Your task to perform on an android device: Open calendar and show me the second week of next month Image 0: 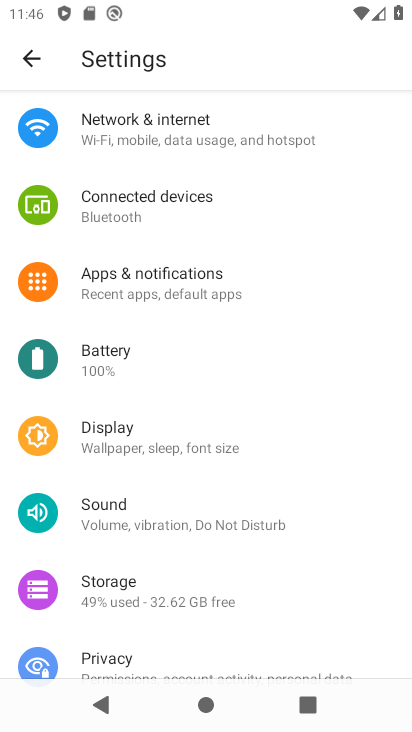
Step 0: press home button
Your task to perform on an android device: Open calendar and show me the second week of next month Image 1: 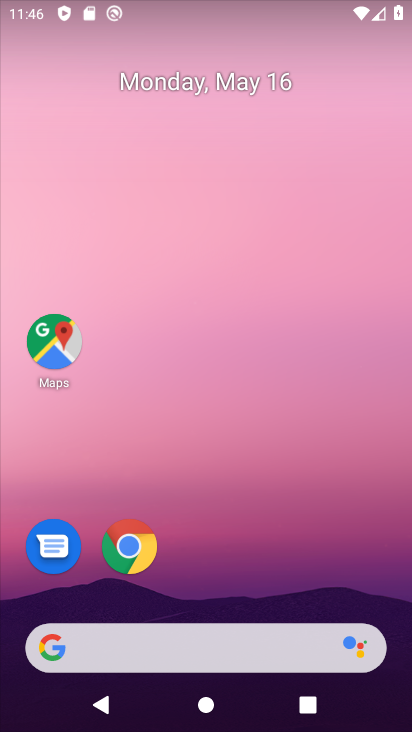
Step 1: drag from (396, 633) to (300, 118)
Your task to perform on an android device: Open calendar and show me the second week of next month Image 2: 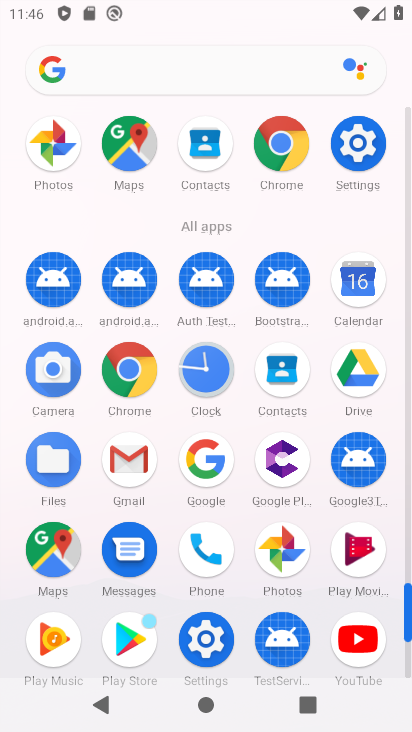
Step 2: click (409, 660)
Your task to perform on an android device: Open calendar and show me the second week of next month Image 3: 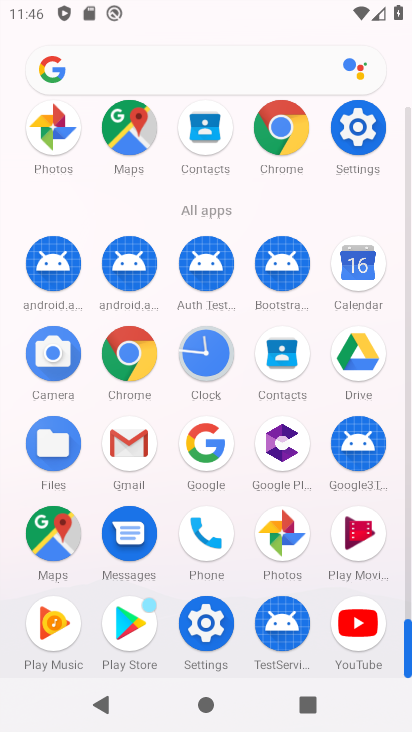
Step 3: click (357, 262)
Your task to perform on an android device: Open calendar and show me the second week of next month Image 4: 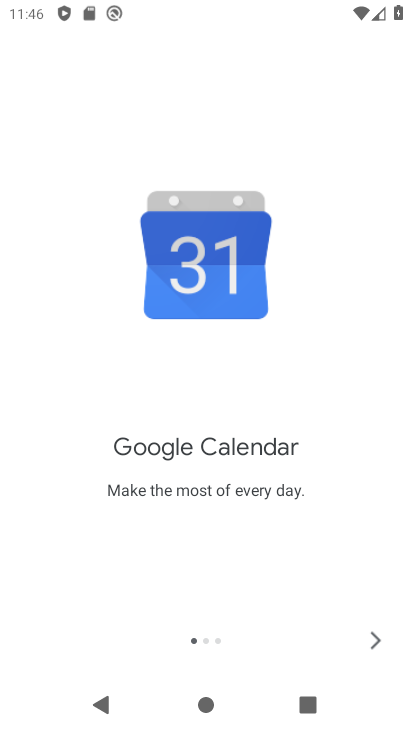
Step 4: click (374, 633)
Your task to perform on an android device: Open calendar and show me the second week of next month Image 5: 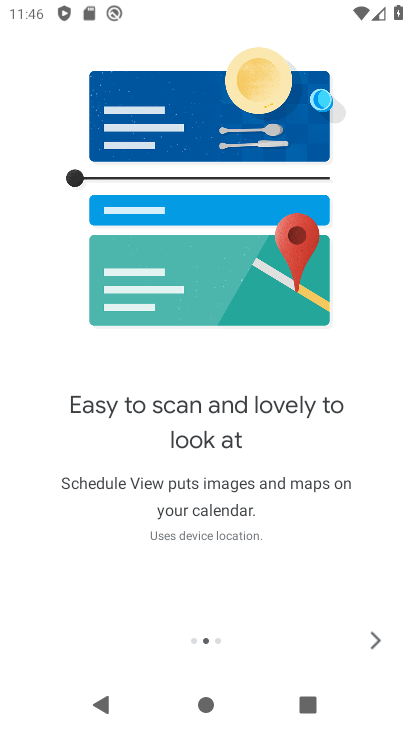
Step 5: click (374, 633)
Your task to perform on an android device: Open calendar and show me the second week of next month Image 6: 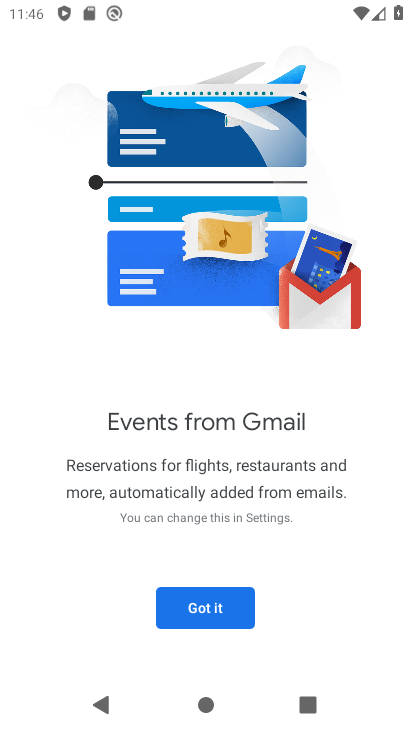
Step 6: click (209, 605)
Your task to perform on an android device: Open calendar and show me the second week of next month Image 7: 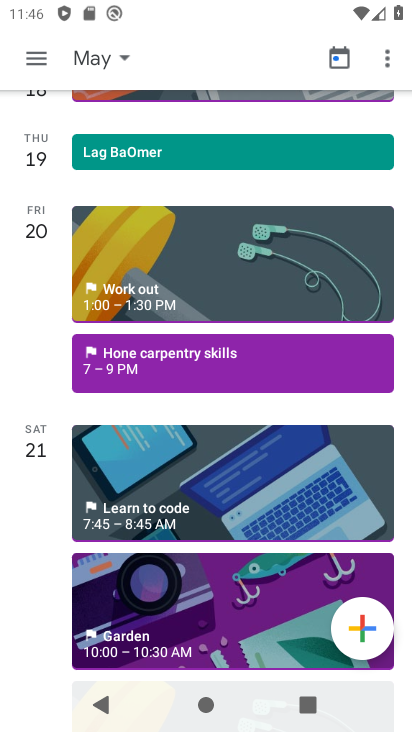
Step 7: click (29, 53)
Your task to perform on an android device: Open calendar and show me the second week of next month Image 8: 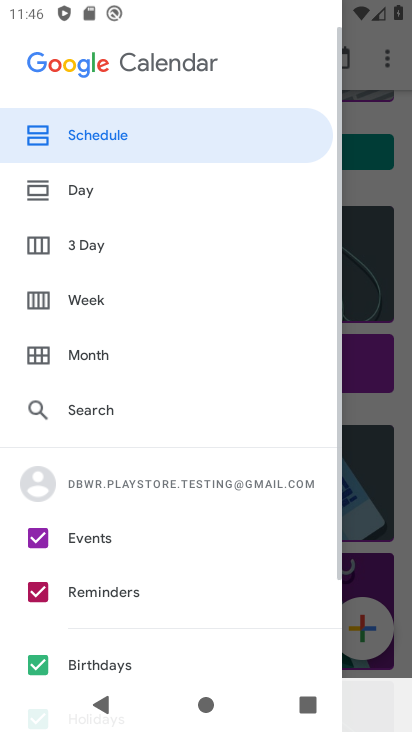
Step 8: click (91, 291)
Your task to perform on an android device: Open calendar and show me the second week of next month Image 9: 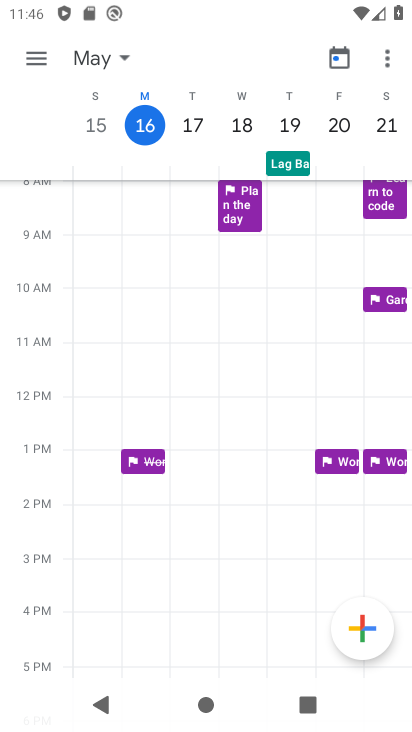
Step 9: click (115, 48)
Your task to perform on an android device: Open calendar and show me the second week of next month Image 10: 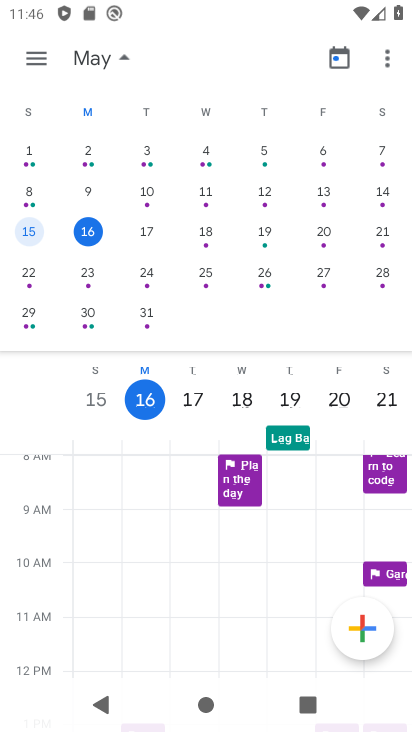
Step 10: drag from (374, 254) to (10, 167)
Your task to perform on an android device: Open calendar and show me the second week of next month Image 11: 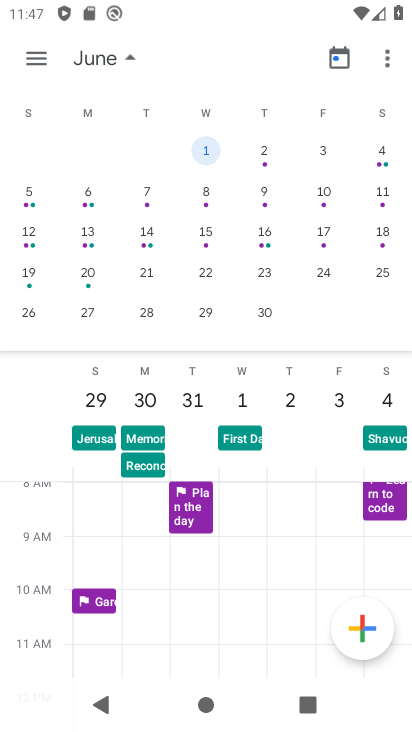
Step 11: click (30, 195)
Your task to perform on an android device: Open calendar and show me the second week of next month Image 12: 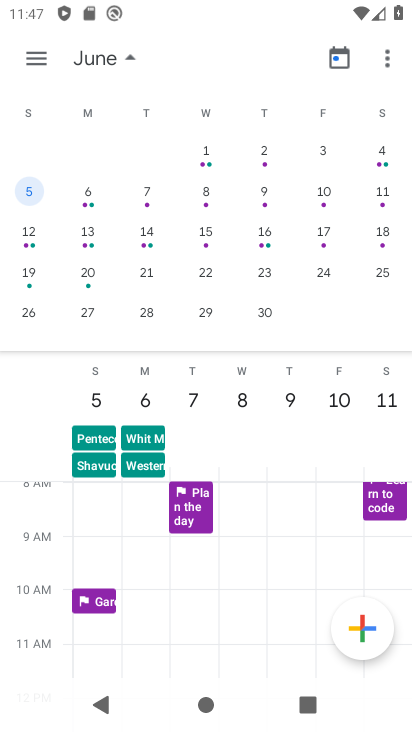
Step 12: task complete